Your task to perform on an android device: Open privacy settings Image 0: 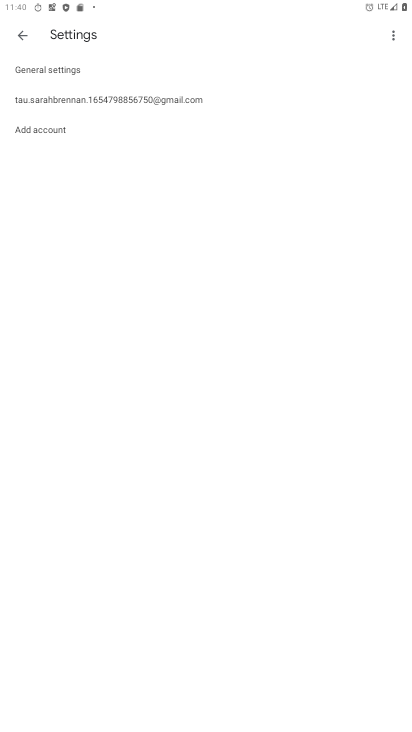
Step 0: press home button
Your task to perform on an android device: Open privacy settings Image 1: 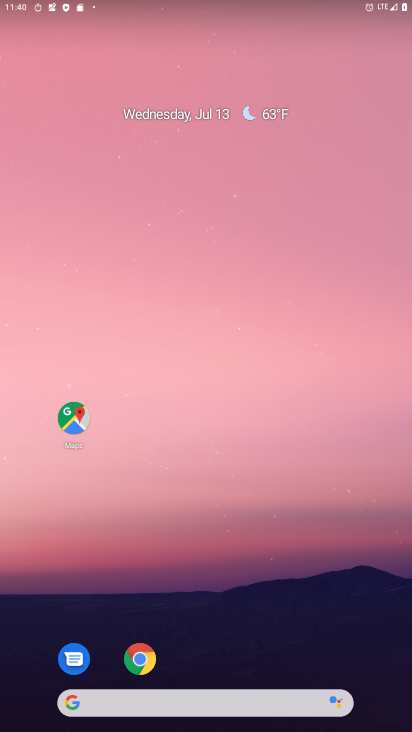
Step 1: drag from (289, 512) to (76, 155)
Your task to perform on an android device: Open privacy settings Image 2: 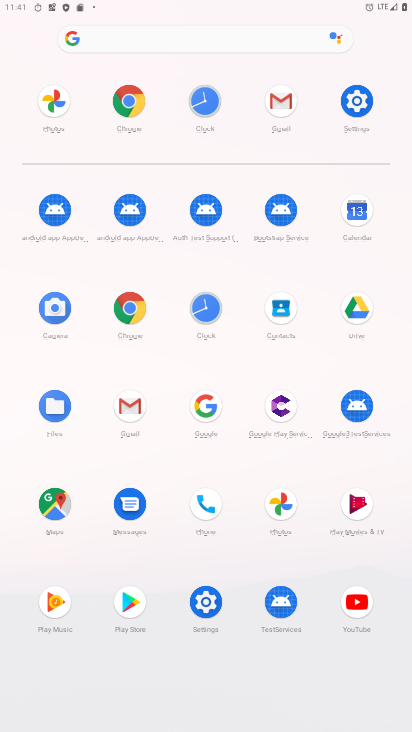
Step 2: click (354, 104)
Your task to perform on an android device: Open privacy settings Image 3: 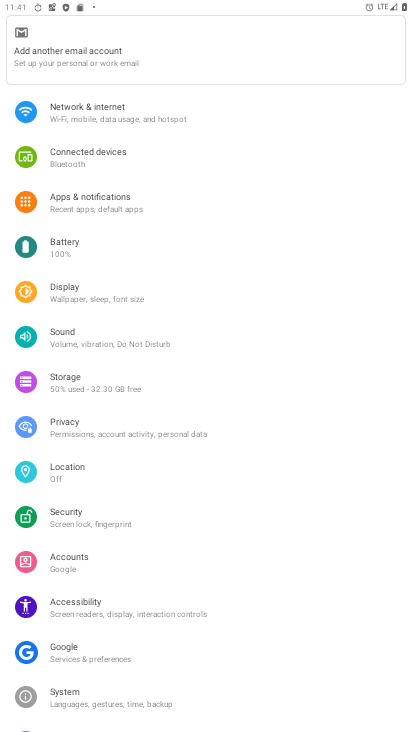
Step 3: click (78, 436)
Your task to perform on an android device: Open privacy settings Image 4: 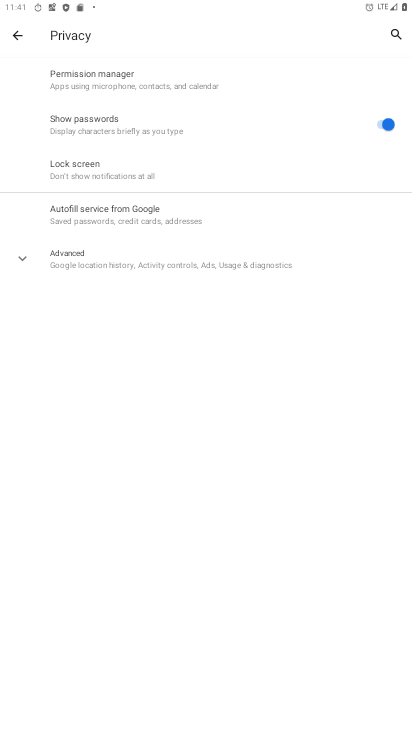
Step 4: task complete